Your task to perform on an android device: turn off smart reply in the gmail app Image 0: 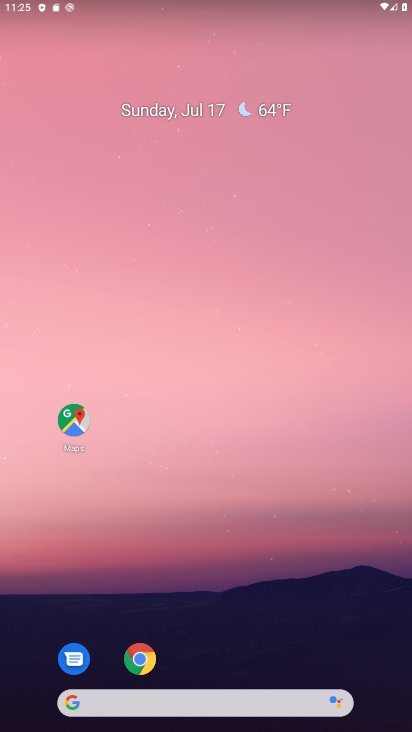
Step 0: drag from (266, 624) to (398, 59)
Your task to perform on an android device: turn off smart reply in the gmail app Image 1: 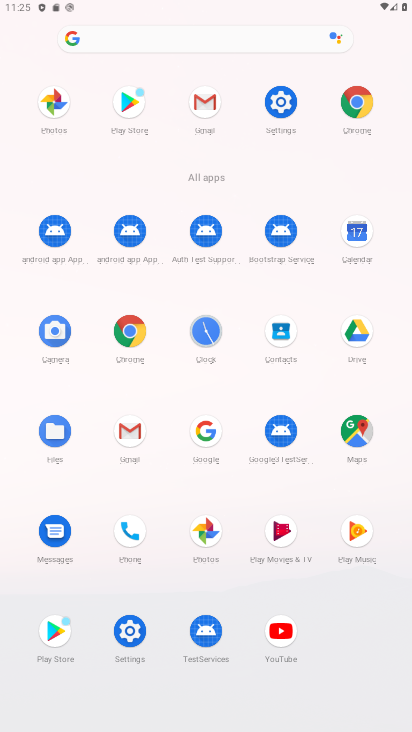
Step 1: click (130, 435)
Your task to perform on an android device: turn off smart reply in the gmail app Image 2: 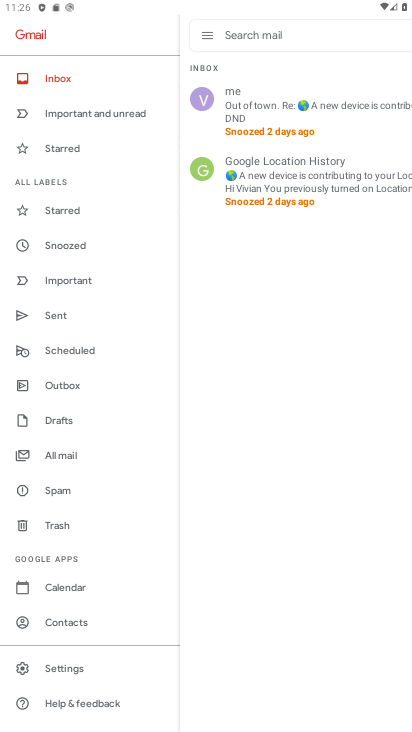
Step 2: click (61, 671)
Your task to perform on an android device: turn off smart reply in the gmail app Image 3: 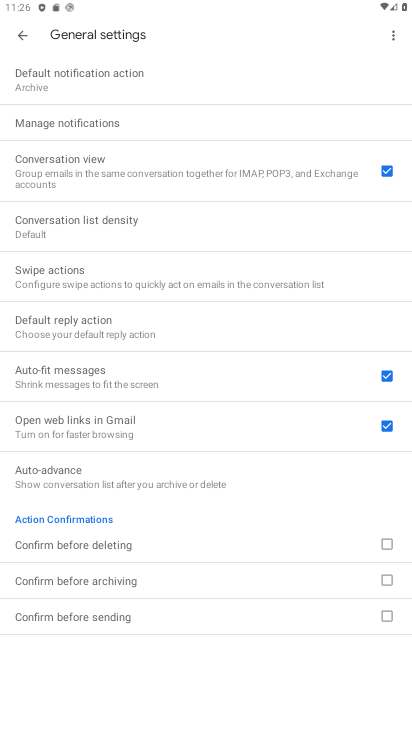
Step 3: click (65, 336)
Your task to perform on an android device: turn off smart reply in the gmail app Image 4: 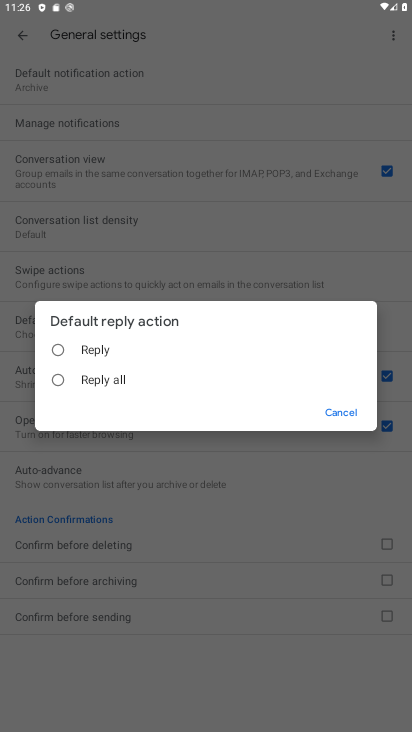
Step 4: click (339, 414)
Your task to perform on an android device: turn off smart reply in the gmail app Image 5: 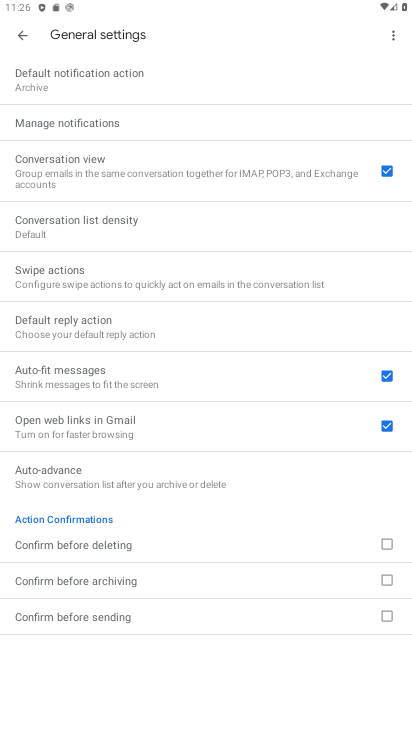
Step 5: task complete